Your task to perform on an android device: turn off sleep mode Image 0: 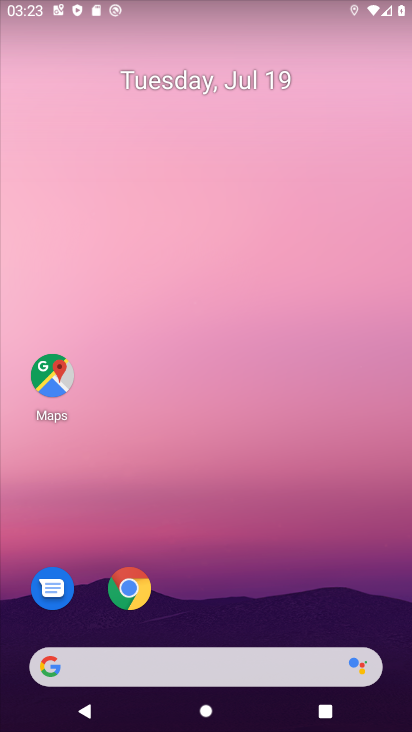
Step 0: drag from (270, 540) to (198, 86)
Your task to perform on an android device: turn off sleep mode Image 1: 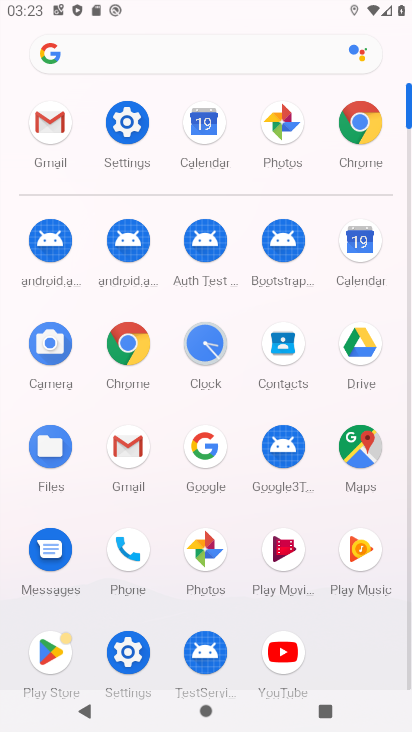
Step 1: click (133, 122)
Your task to perform on an android device: turn off sleep mode Image 2: 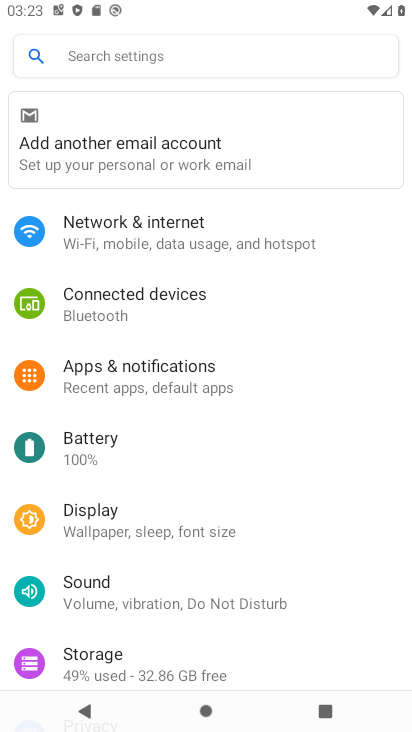
Step 2: click (127, 520)
Your task to perform on an android device: turn off sleep mode Image 3: 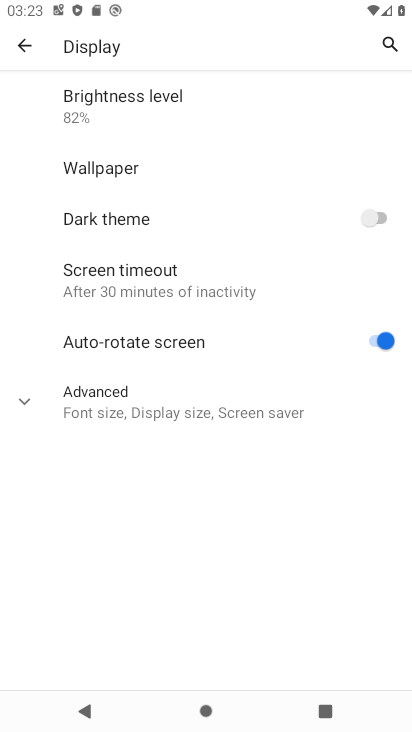
Step 3: task complete